Your task to perform on an android device: turn off improve location accuracy Image 0: 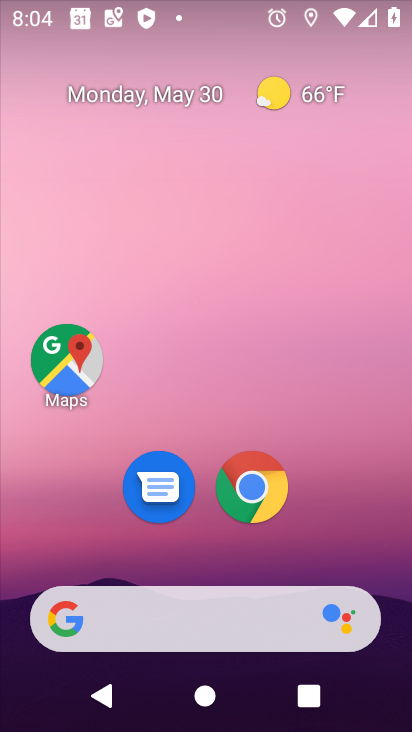
Step 0: drag from (340, 559) to (352, 132)
Your task to perform on an android device: turn off improve location accuracy Image 1: 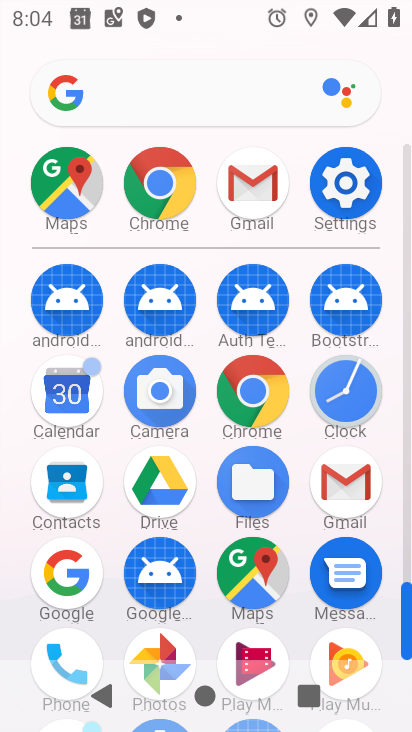
Step 1: click (342, 193)
Your task to perform on an android device: turn off improve location accuracy Image 2: 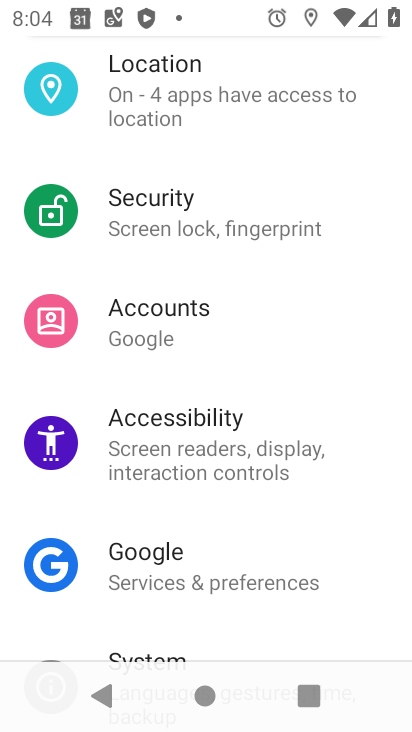
Step 2: click (180, 88)
Your task to perform on an android device: turn off improve location accuracy Image 3: 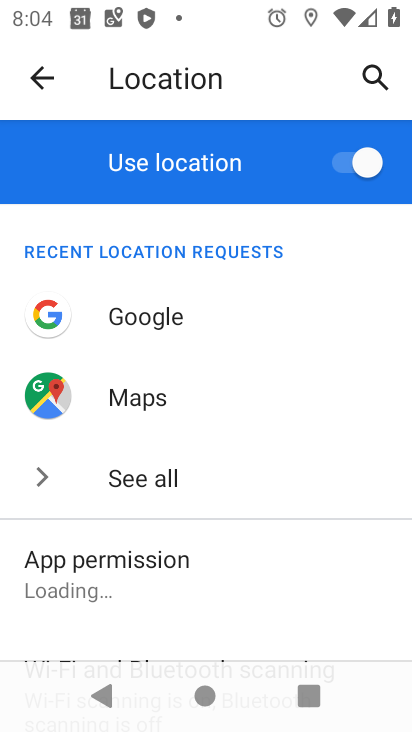
Step 3: drag from (350, 441) to (310, 76)
Your task to perform on an android device: turn off improve location accuracy Image 4: 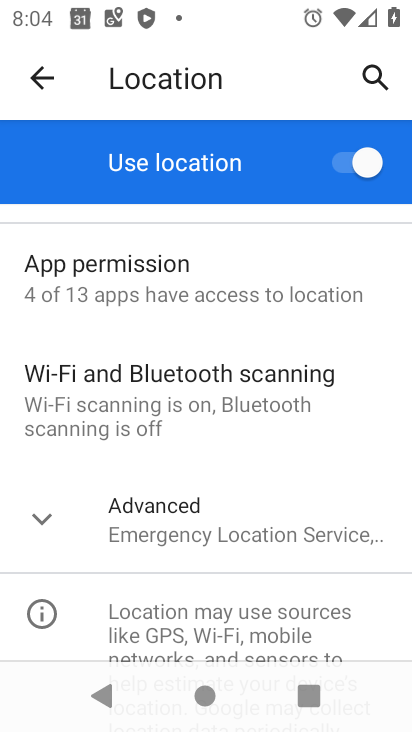
Step 4: drag from (282, 455) to (294, 262)
Your task to perform on an android device: turn off improve location accuracy Image 5: 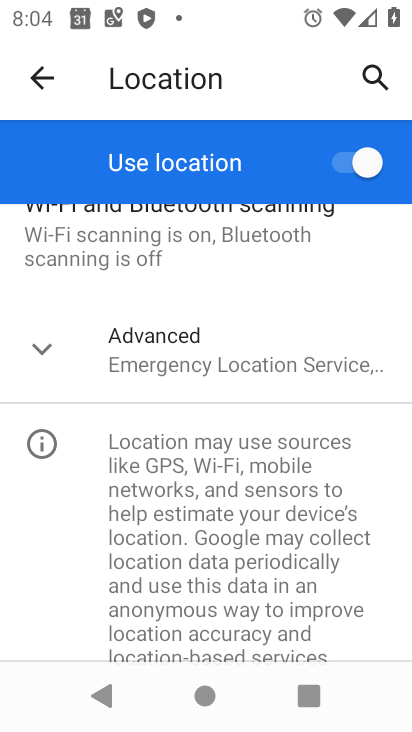
Step 5: click (168, 348)
Your task to perform on an android device: turn off improve location accuracy Image 6: 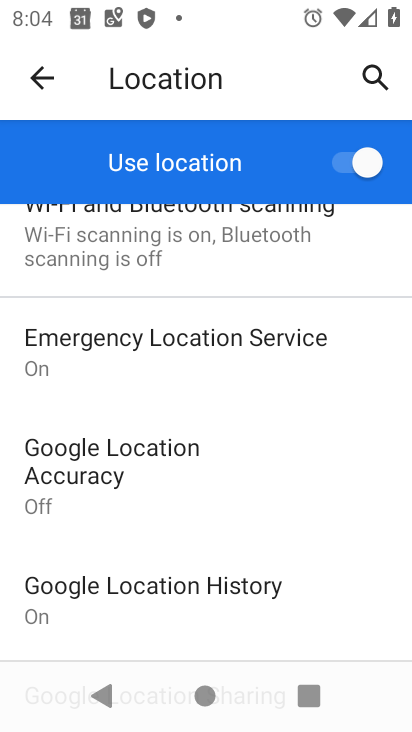
Step 6: click (138, 459)
Your task to perform on an android device: turn off improve location accuracy Image 7: 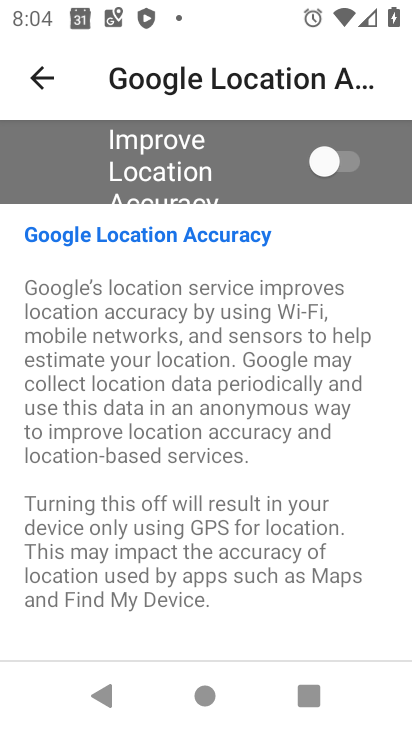
Step 7: task complete